Your task to perform on an android device: turn on translation in the chrome app Image 0: 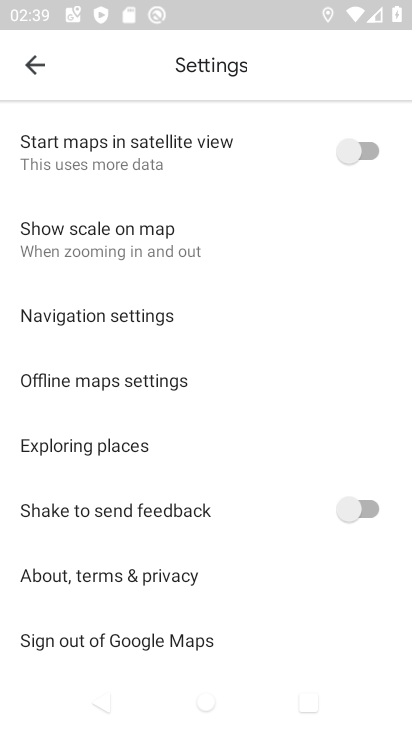
Step 0: press back button
Your task to perform on an android device: turn on translation in the chrome app Image 1: 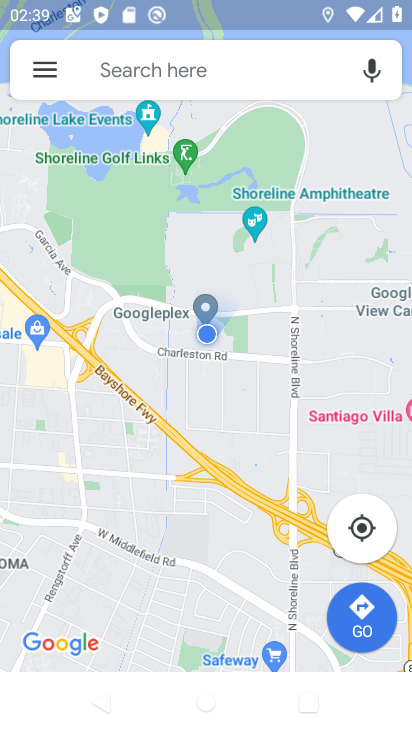
Step 1: press back button
Your task to perform on an android device: turn on translation in the chrome app Image 2: 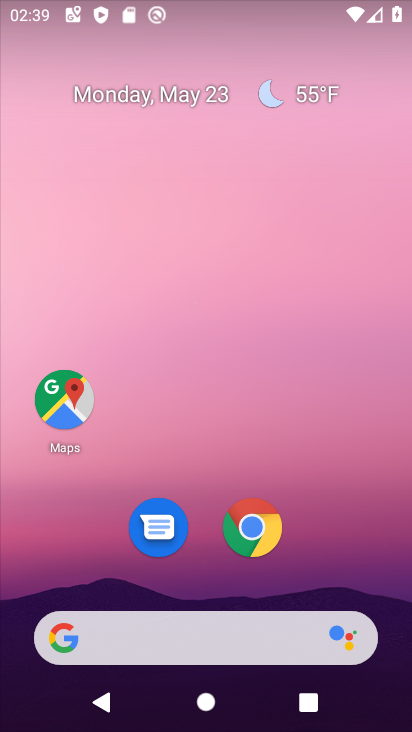
Step 2: drag from (320, 589) to (286, 18)
Your task to perform on an android device: turn on translation in the chrome app Image 3: 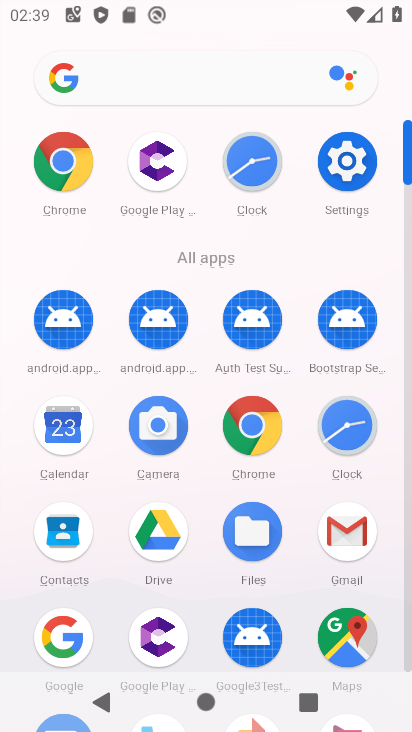
Step 3: click (248, 416)
Your task to perform on an android device: turn on translation in the chrome app Image 4: 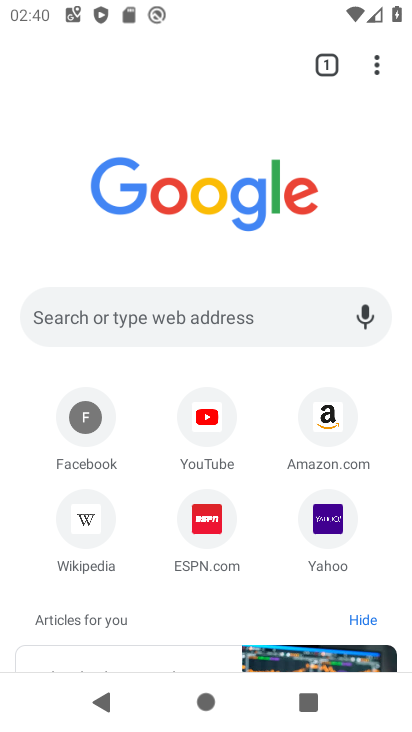
Step 4: drag from (375, 67) to (145, 548)
Your task to perform on an android device: turn on translation in the chrome app Image 5: 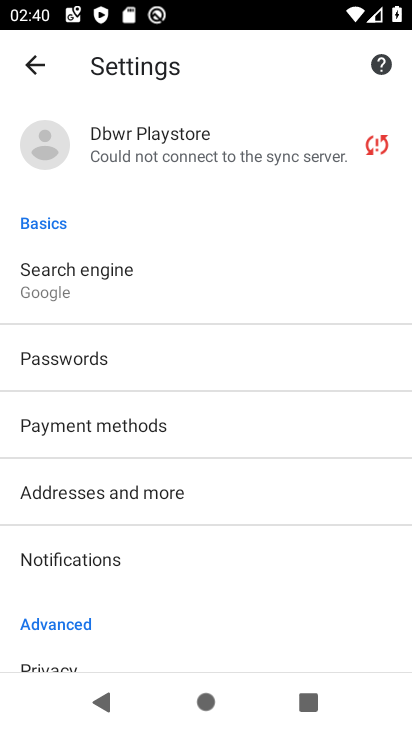
Step 5: drag from (235, 549) to (236, 191)
Your task to perform on an android device: turn on translation in the chrome app Image 6: 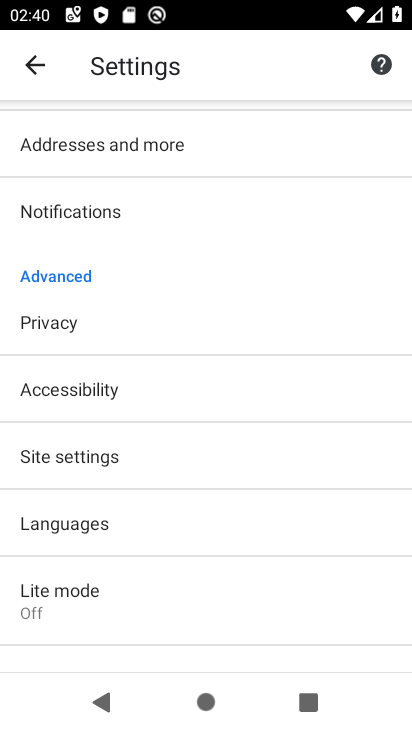
Step 6: click (115, 522)
Your task to perform on an android device: turn on translation in the chrome app Image 7: 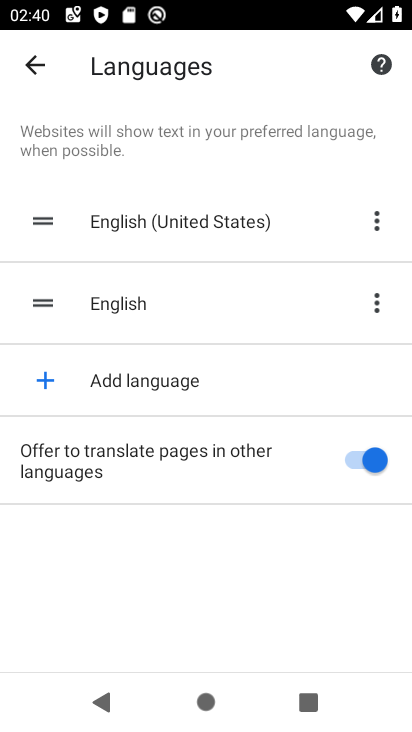
Step 7: task complete